Your task to perform on an android device: see sites visited before in the chrome app Image 0: 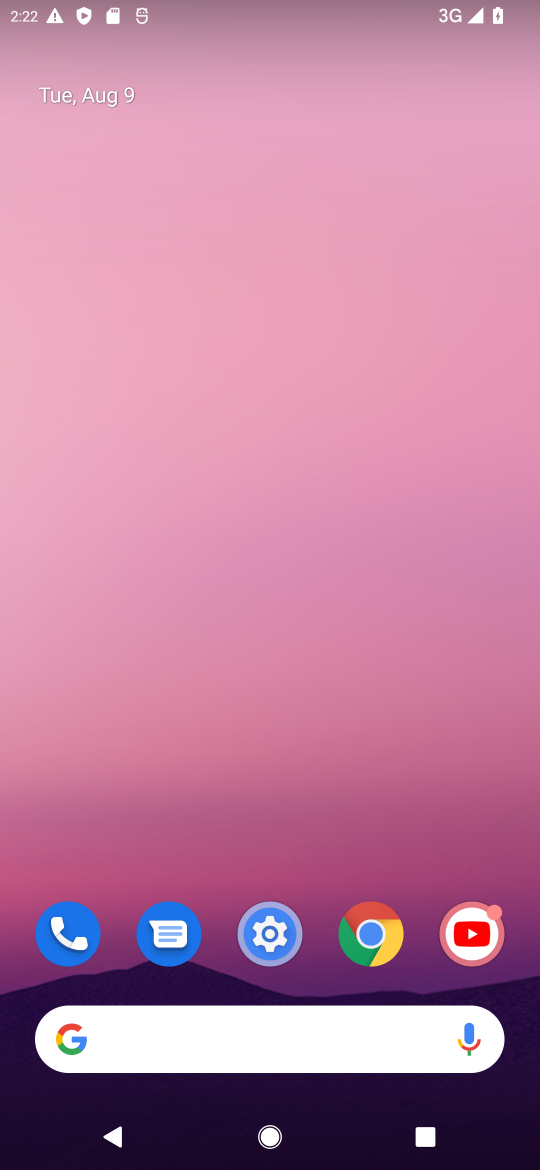
Step 0: click (378, 952)
Your task to perform on an android device: see sites visited before in the chrome app Image 1: 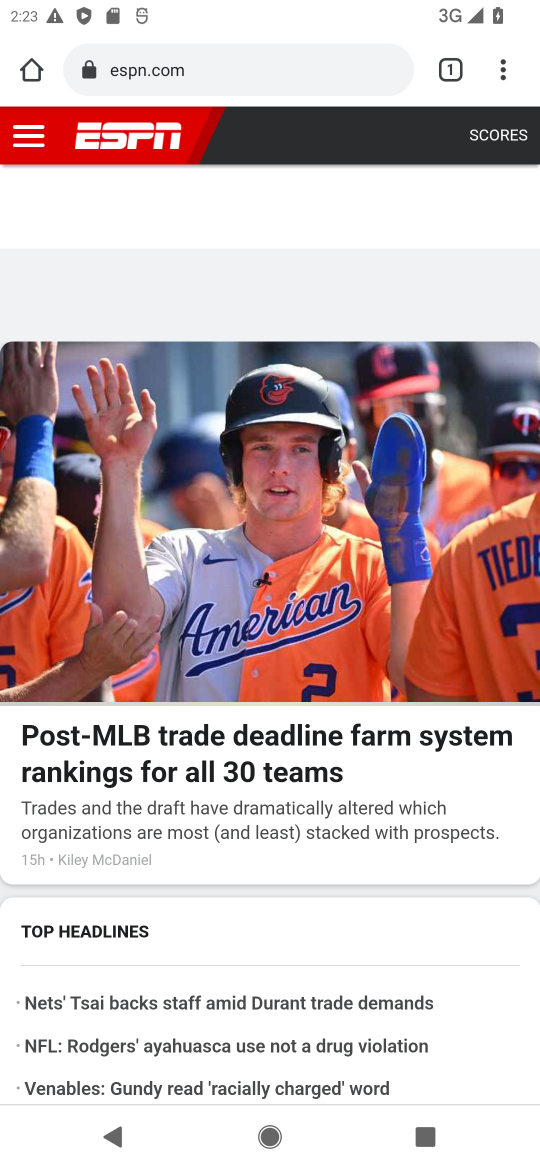
Step 1: click (506, 59)
Your task to perform on an android device: see sites visited before in the chrome app Image 2: 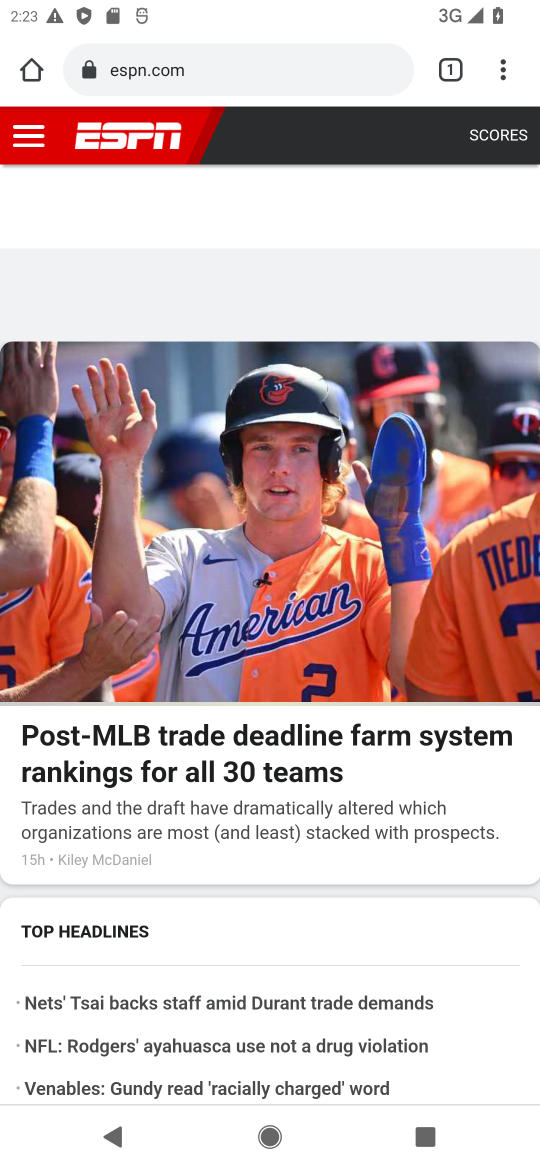
Step 2: click (502, 89)
Your task to perform on an android device: see sites visited before in the chrome app Image 3: 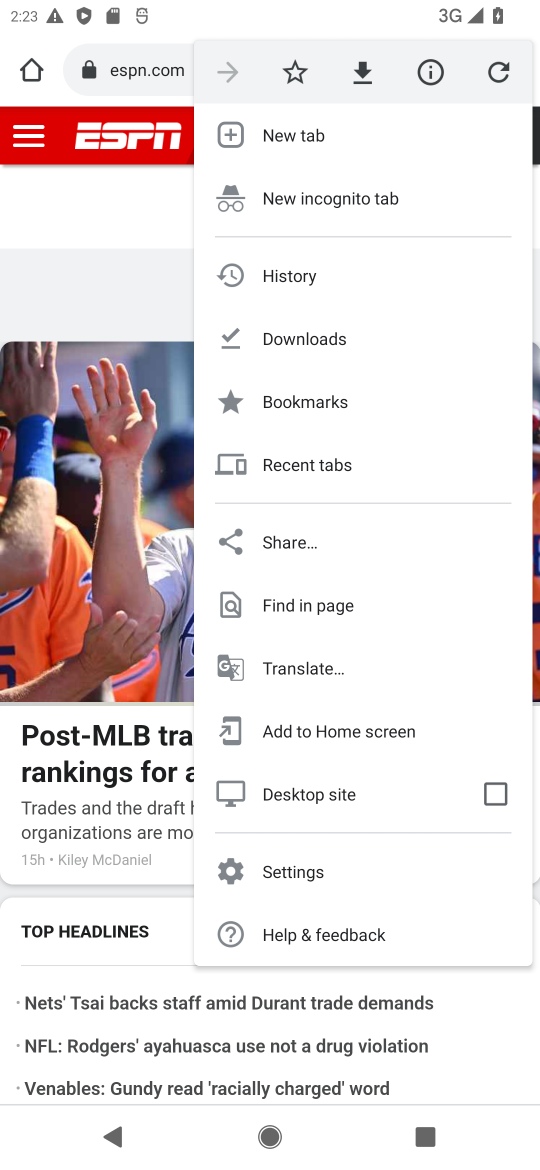
Step 3: click (288, 864)
Your task to perform on an android device: see sites visited before in the chrome app Image 4: 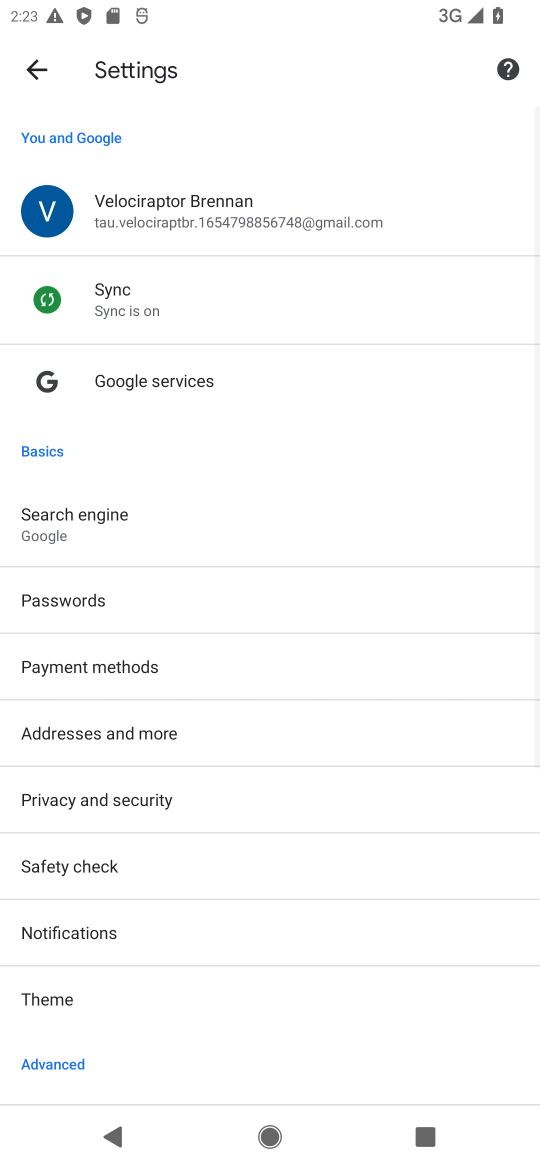
Step 4: task complete